Your task to perform on an android device: Open Youtube and go to "Your channel" Image 0: 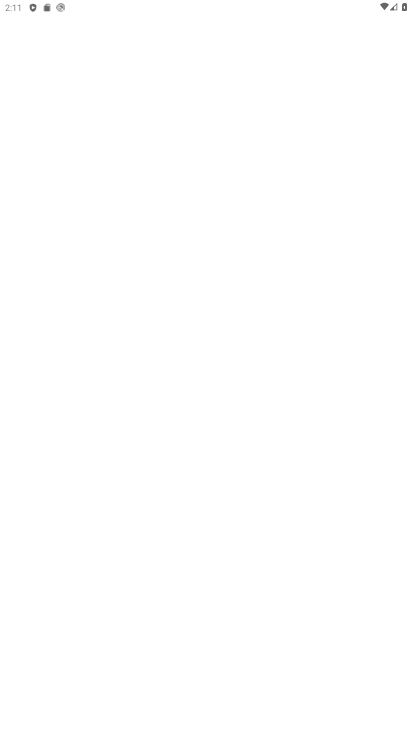
Step 0: press home button
Your task to perform on an android device: Open Youtube and go to "Your channel" Image 1: 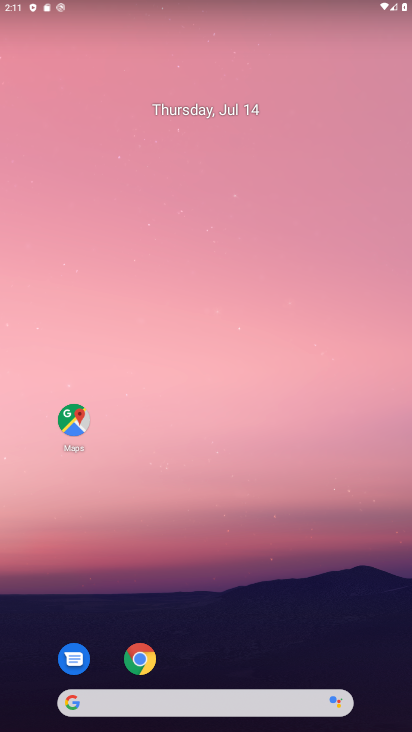
Step 1: drag from (278, 646) to (235, 197)
Your task to perform on an android device: Open Youtube and go to "Your channel" Image 2: 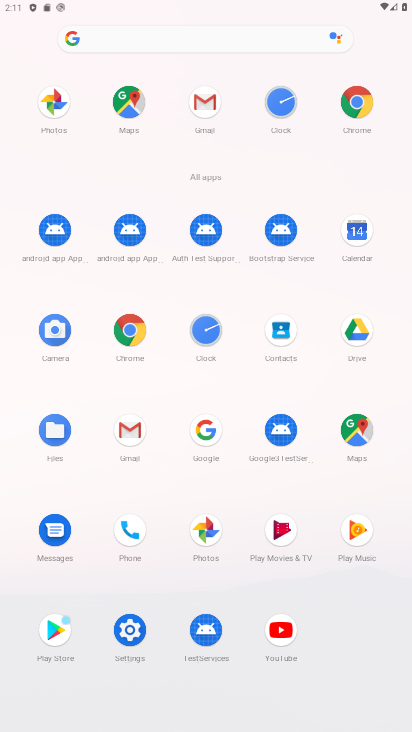
Step 2: click (286, 629)
Your task to perform on an android device: Open Youtube and go to "Your channel" Image 3: 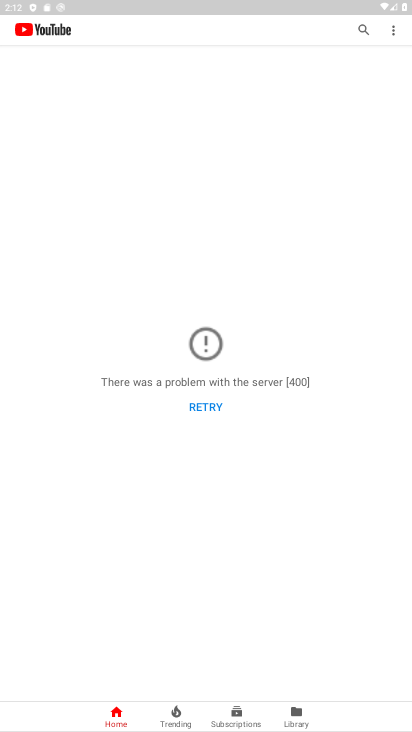
Step 3: task complete